Your task to perform on an android device: uninstall "Etsy: Buy & Sell Unique Items" Image 0: 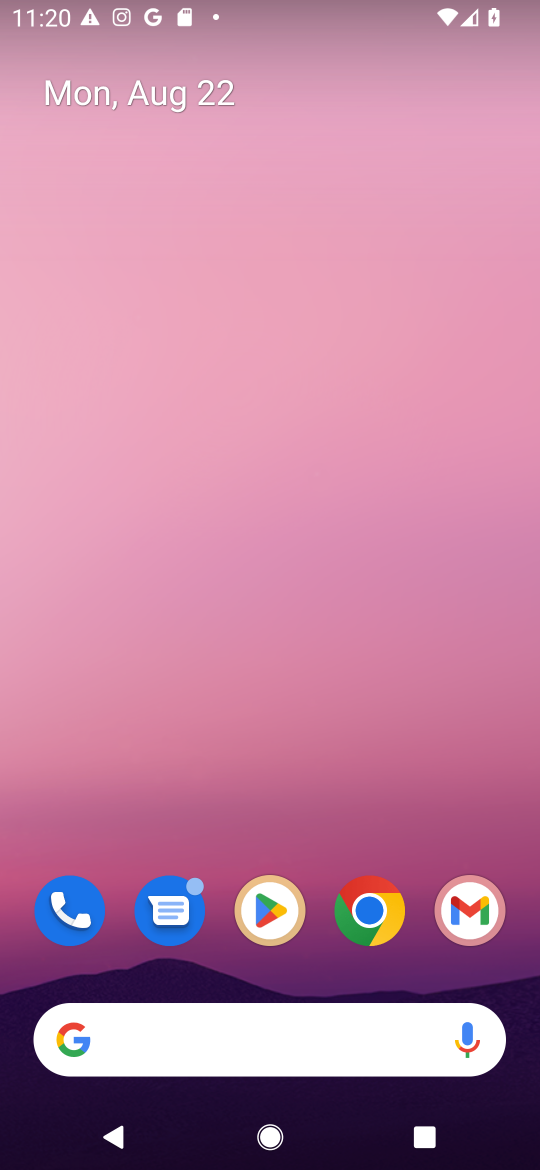
Step 0: click (257, 919)
Your task to perform on an android device: uninstall "Etsy: Buy & Sell Unique Items" Image 1: 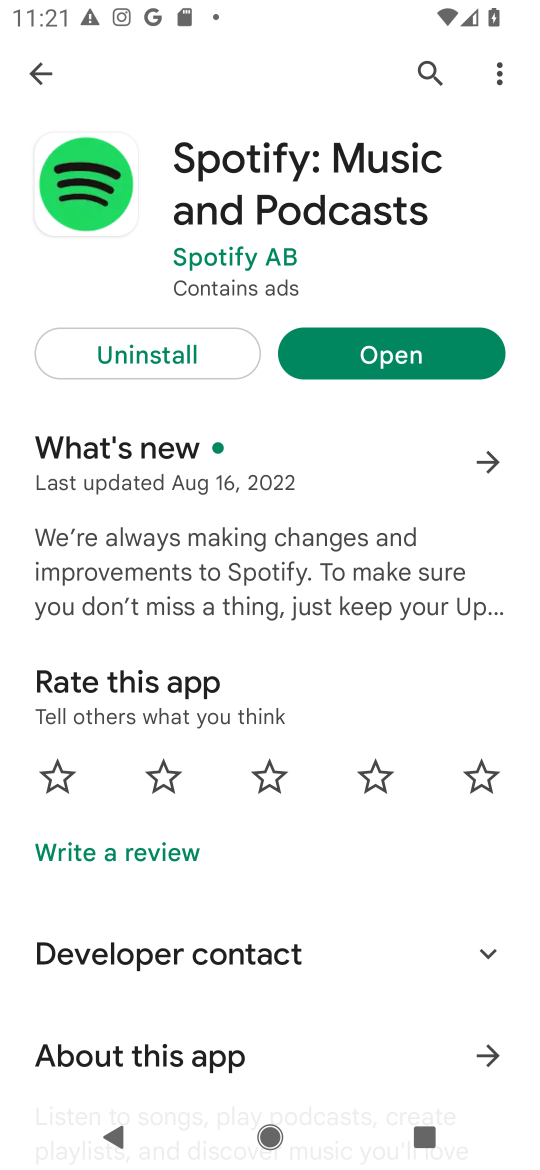
Step 1: click (419, 56)
Your task to perform on an android device: uninstall "Etsy: Buy & Sell Unique Items" Image 2: 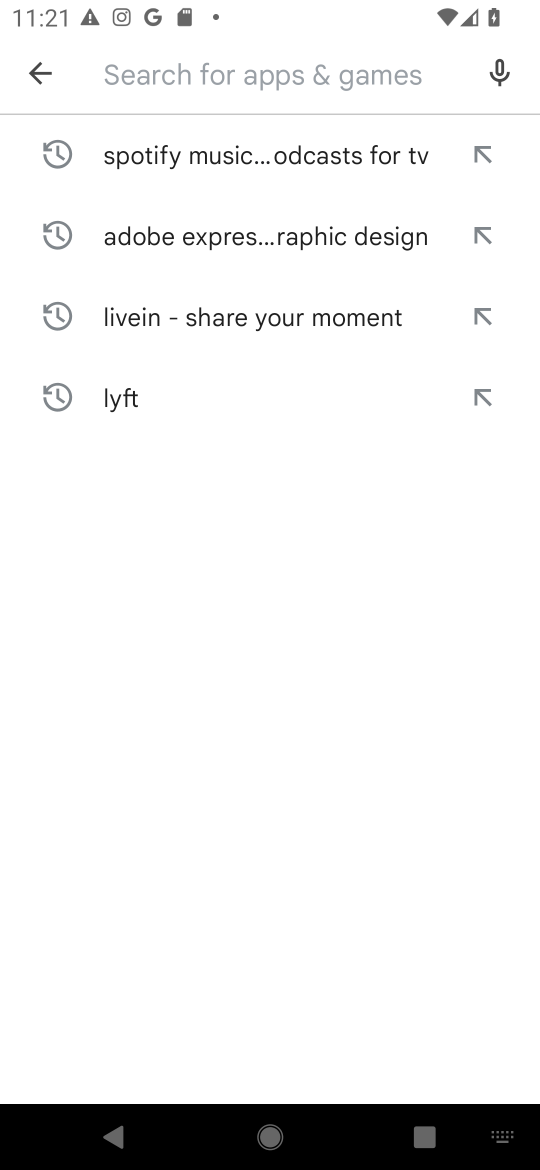
Step 2: type "Etsy: Buy & Sell Unique Items"
Your task to perform on an android device: uninstall "Etsy: Buy & Sell Unique Items" Image 3: 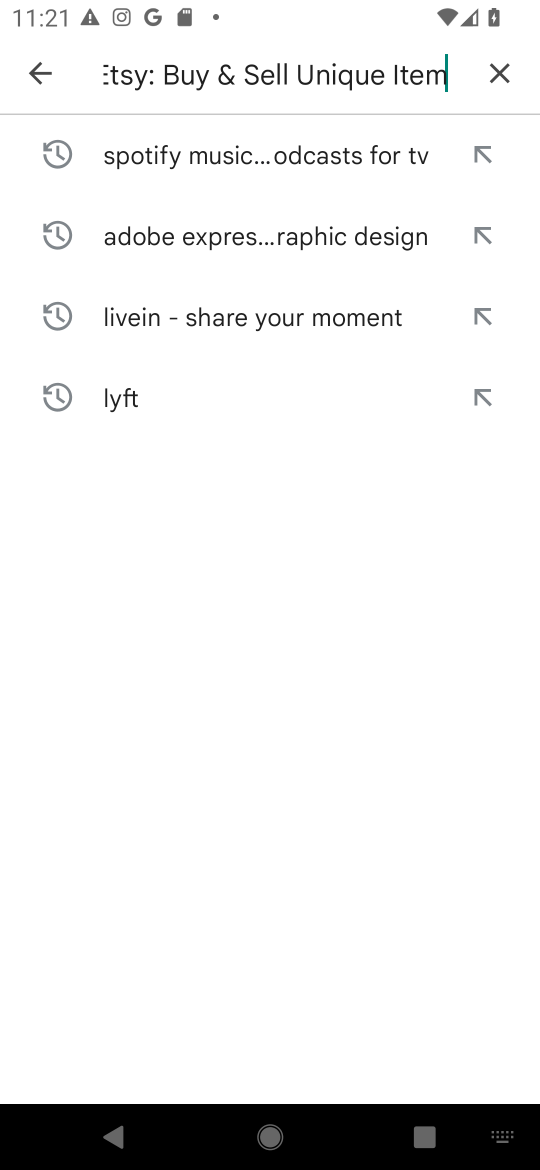
Step 3: type ""
Your task to perform on an android device: uninstall "Etsy: Buy & Sell Unique Items" Image 4: 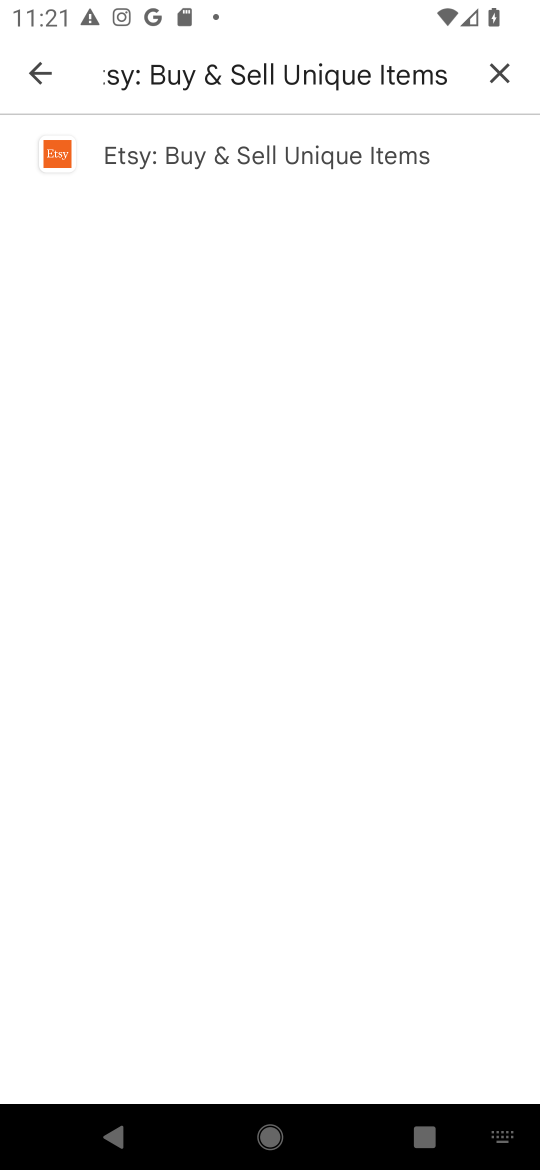
Step 4: click (200, 154)
Your task to perform on an android device: uninstall "Etsy: Buy & Sell Unique Items" Image 5: 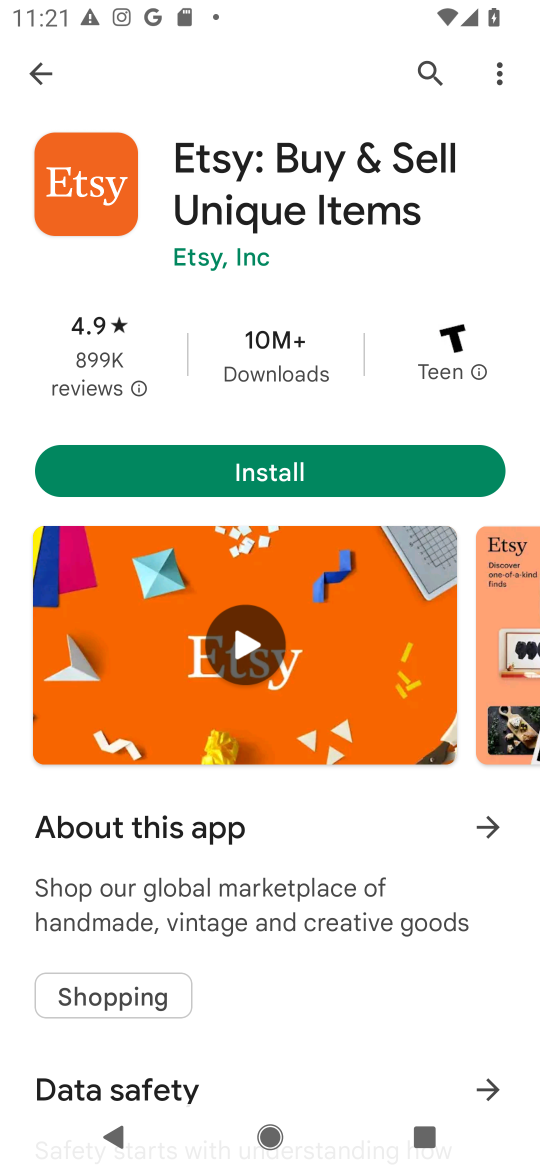
Step 5: task complete